Your task to perform on an android device: set the stopwatch Image 0: 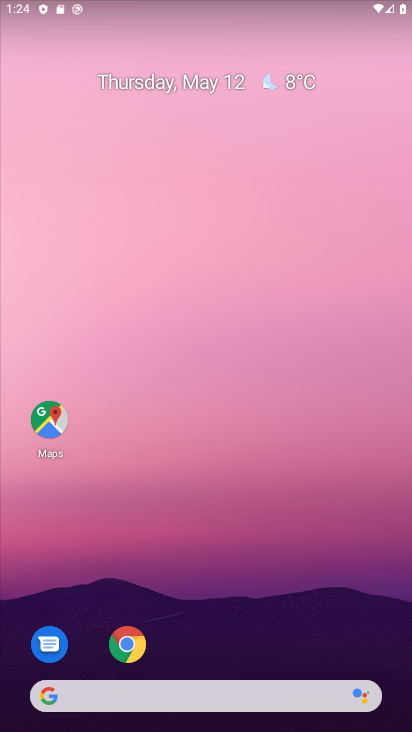
Step 0: drag from (237, 661) to (230, 171)
Your task to perform on an android device: set the stopwatch Image 1: 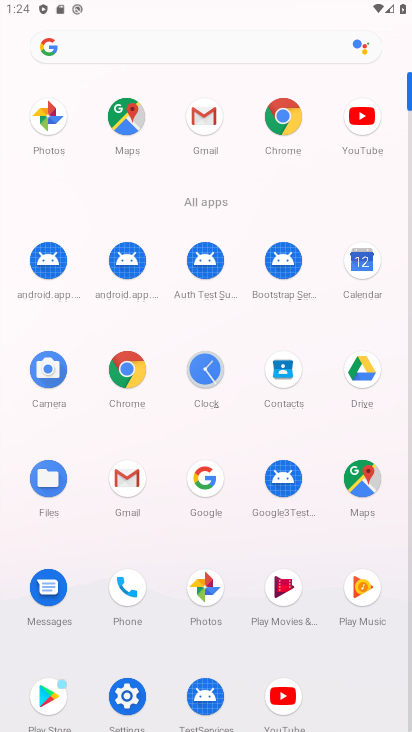
Step 1: click (206, 375)
Your task to perform on an android device: set the stopwatch Image 2: 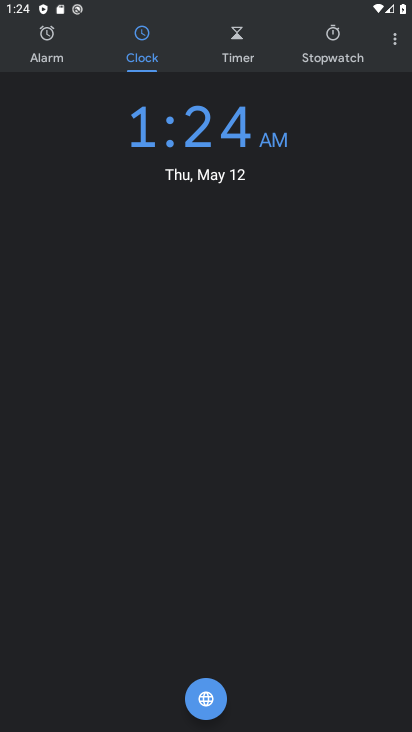
Step 2: click (333, 46)
Your task to perform on an android device: set the stopwatch Image 3: 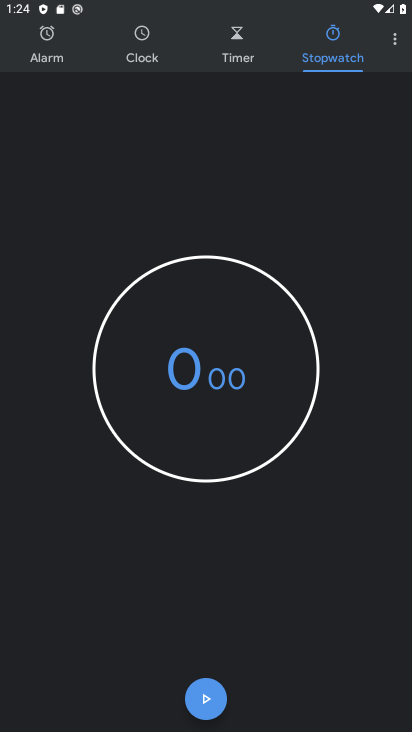
Step 3: click (206, 386)
Your task to perform on an android device: set the stopwatch Image 4: 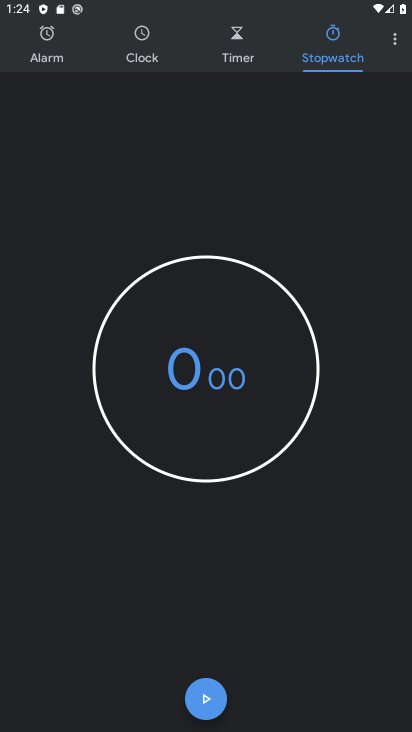
Step 4: type "6789"
Your task to perform on an android device: set the stopwatch Image 5: 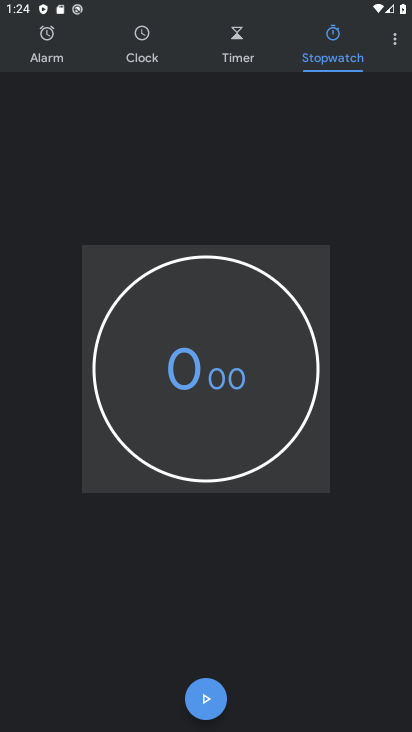
Step 5: type ""
Your task to perform on an android device: set the stopwatch Image 6: 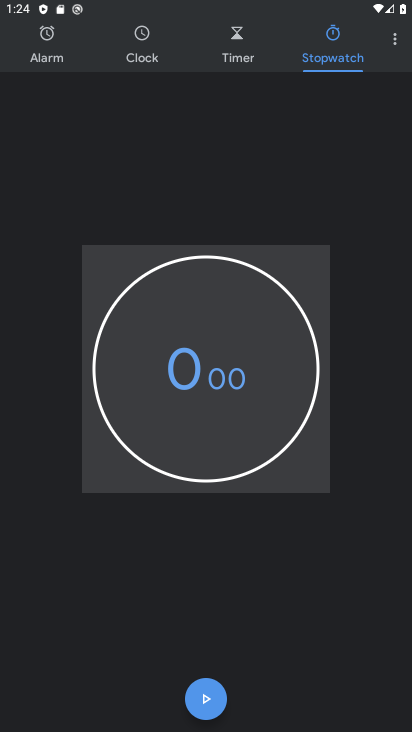
Step 6: type "666"
Your task to perform on an android device: set the stopwatch Image 7: 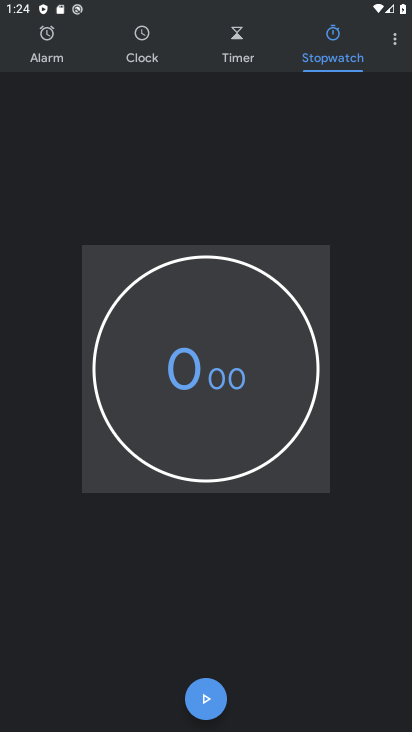
Step 7: type ""
Your task to perform on an android device: set the stopwatch Image 8: 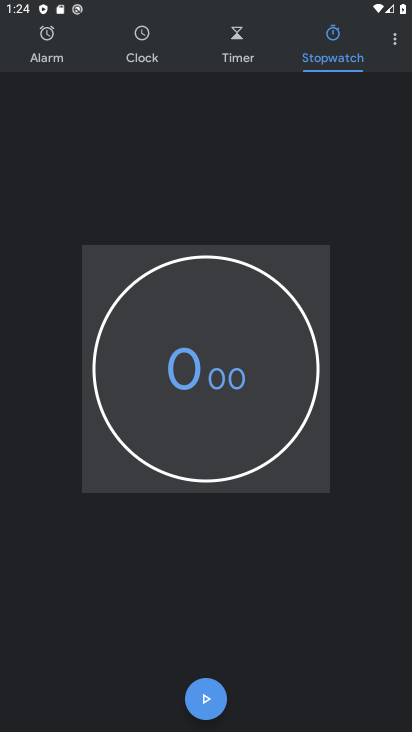
Step 8: click (189, 394)
Your task to perform on an android device: set the stopwatch Image 9: 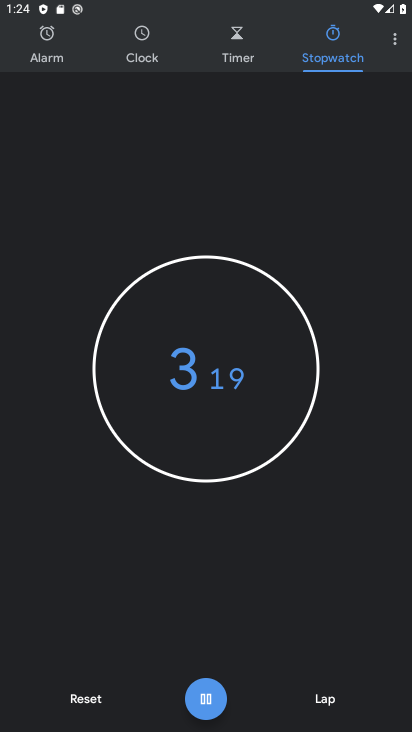
Step 9: task complete